Your task to perform on an android device: Open the Play Movies app and select the watchlist tab. Image 0: 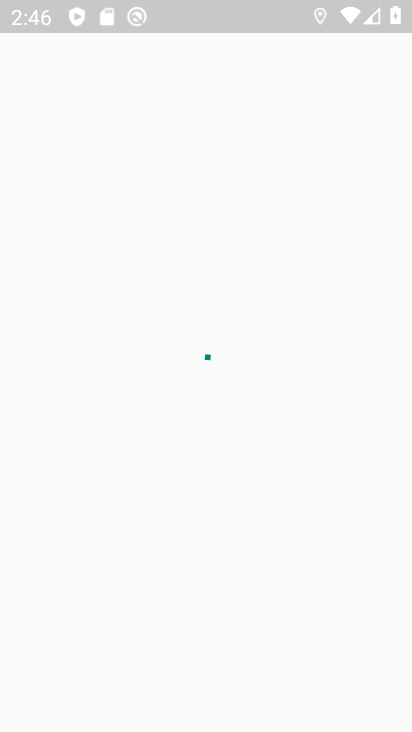
Step 0: press home button
Your task to perform on an android device: Open the Play Movies app and select the watchlist tab. Image 1: 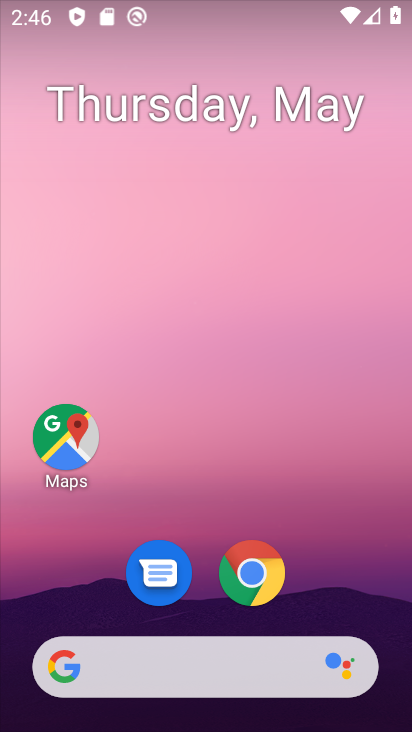
Step 1: drag from (325, 535) to (197, 148)
Your task to perform on an android device: Open the Play Movies app and select the watchlist tab. Image 2: 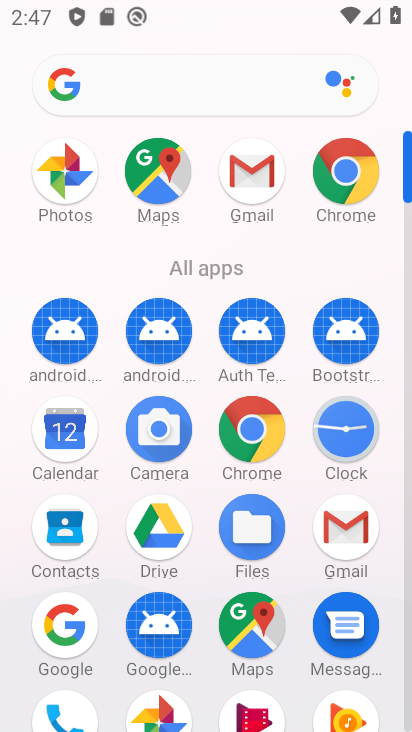
Step 2: drag from (207, 665) to (151, 334)
Your task to perform on an android device: Open the Play Movies app and select the watchlist tab. Image 3: 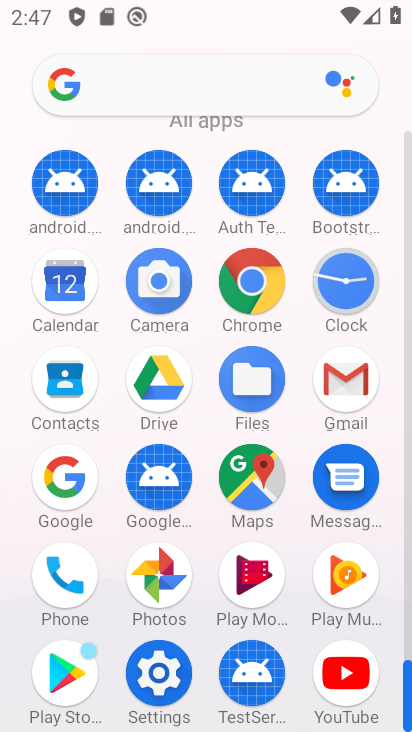
Step 3: click (251, 568)
Your task to perform on an android device: Open the Play Movies app and select the watchlist tab. Image 4: 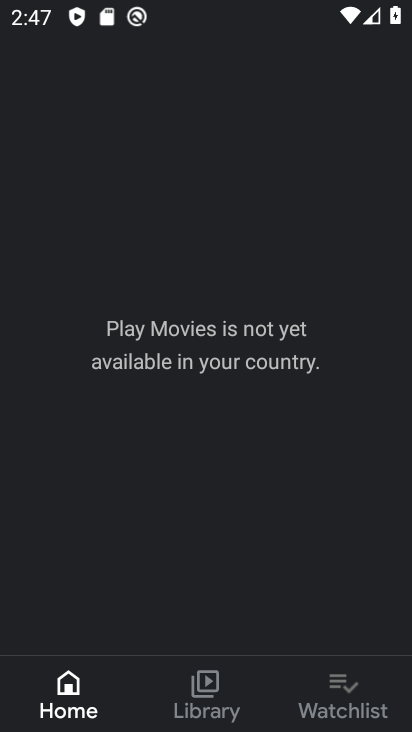
Step 4: click (348, 687)
Your task to perform on an android device: Open the Play Movies app and select the watchlist tab. Image 5: 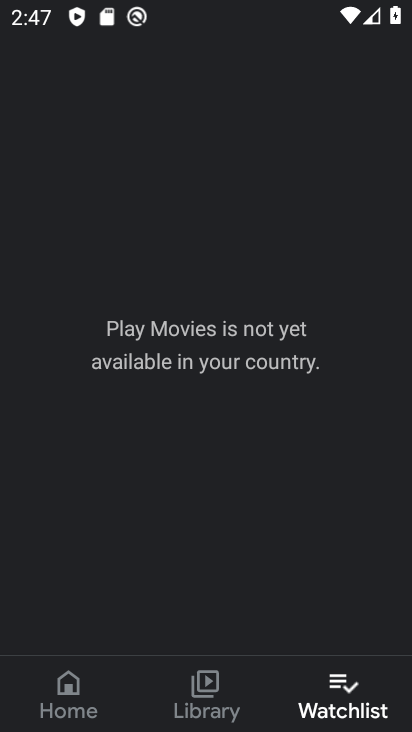
Step 5: task complete